Your task to perform on an android device: What's the weather going to be this weekend? Image 0: 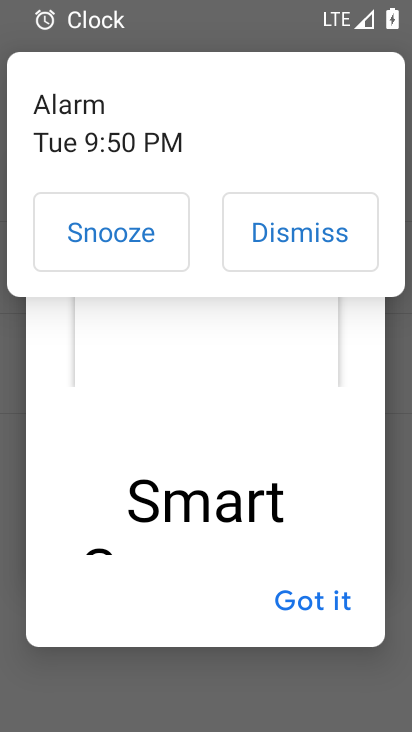
Step 0: click (320, 226)
Your task to perform on an android device: What's the weather going to be this weekend? Image 1: 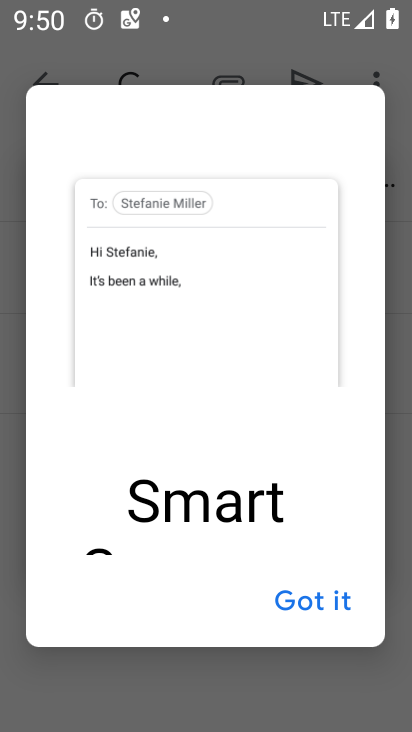
Step 1: press home button
Your task to perform on an android device: What's the weather going to be this weekend? Image 2: 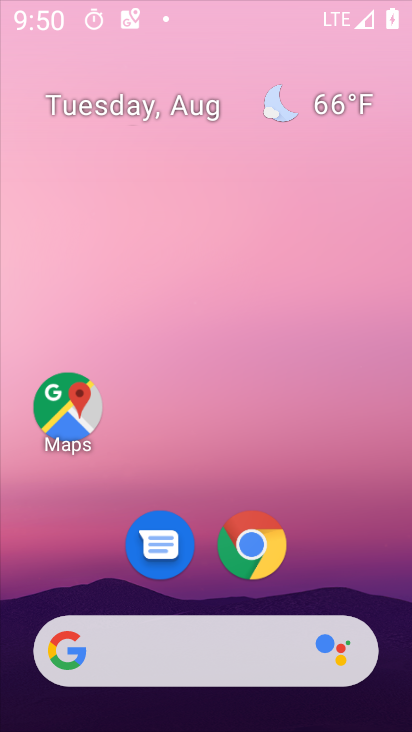
Step 2: drag from (229, 666) to (301, 216)
Your task to perform on an android device: What's the weather going to be this weekend? Image 3: 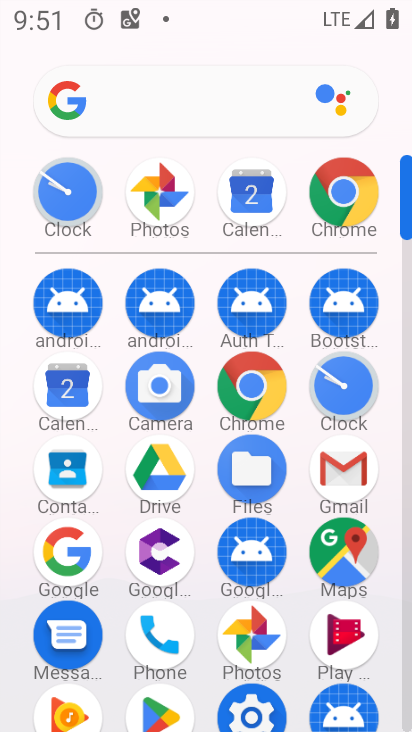
Step 3: click (66, 581)
Your task to perform on an android device: What's the weather going to be this weekend? Image 4: 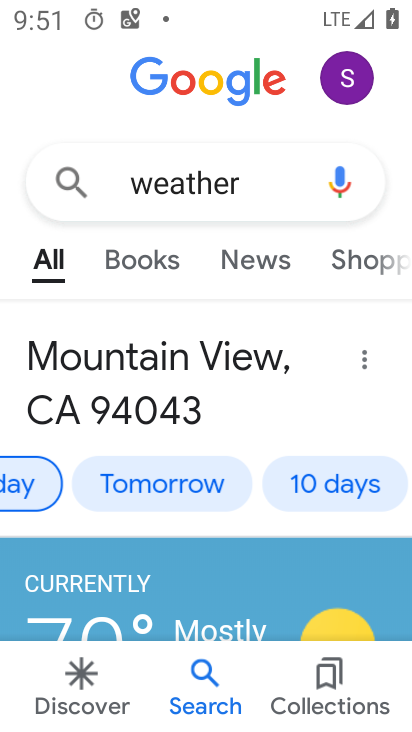
Step 4: click (314, 486)
Your task to perform on an android device: What's the weather going to be this weekend? Image 5: 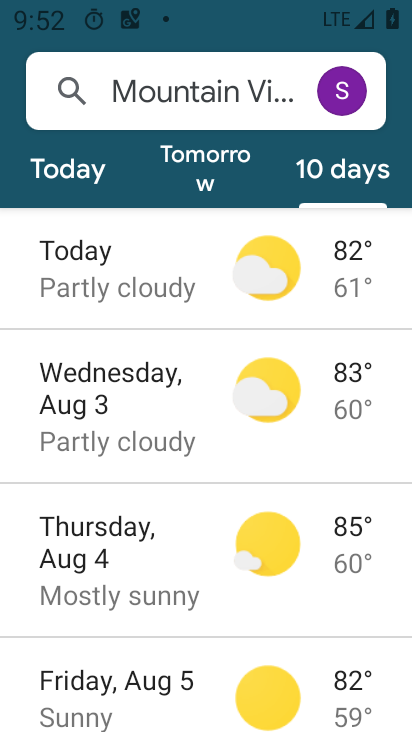
Step 5: task complete